Your task to perform on an android device: Open Yahoo.com Image 0: 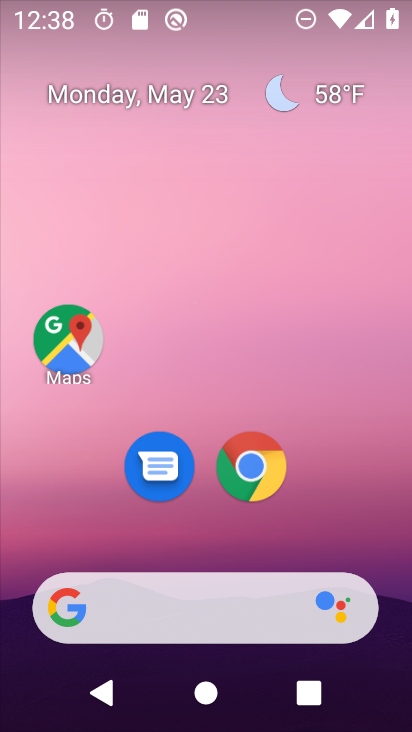
Step 0: click (255, 463)
Your task to perform on an android device: Open Yahoo.com Image 1: 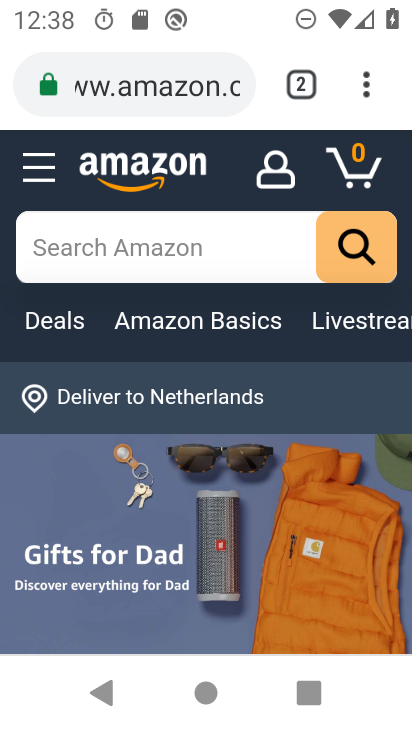
Step 1: press back button
Your task to perform on an android device: Open Yahoo.com Image 2: 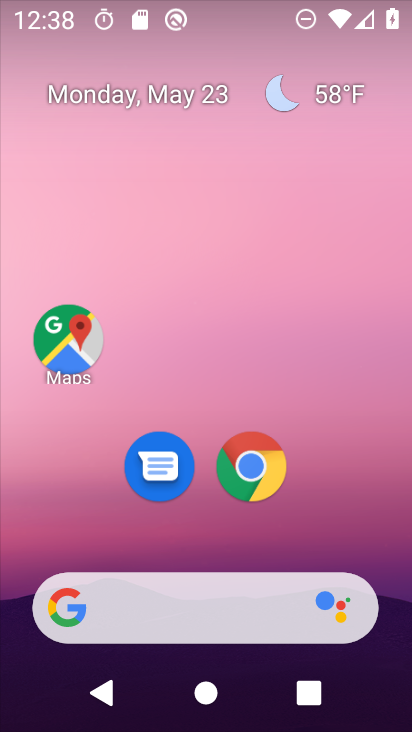
Step 2: click (256, 485)
Your task to perform on an android device: Open Yahoo.com Image 3: 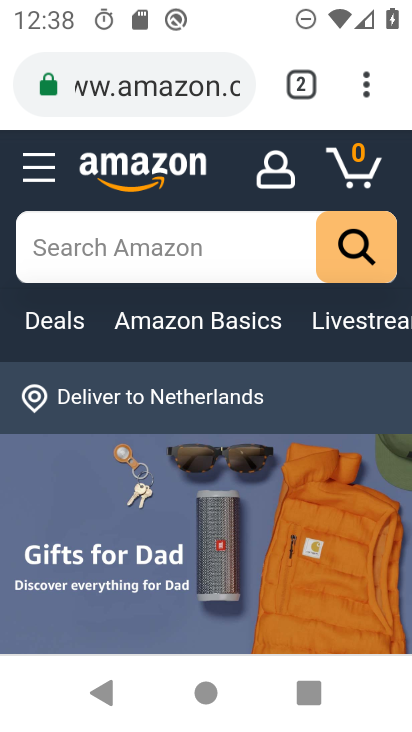
Step 3: click (172, 92)
Your task to perform on an android device: Open Yahoo.com Image 4: 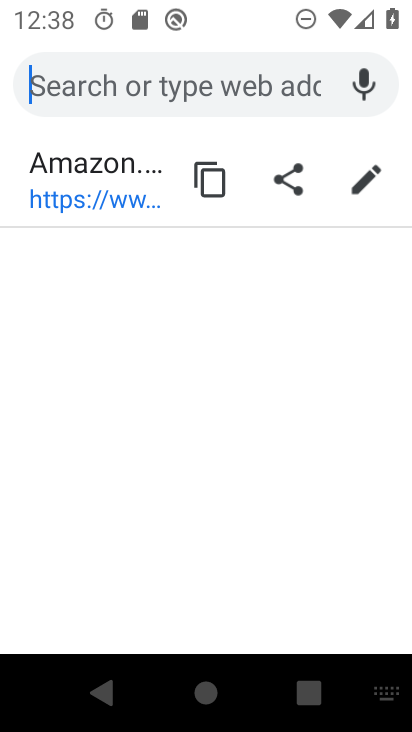
Step 4: type "yahoo.com"
Your task to perform on an android device: Open Yahoo.com Image 5: 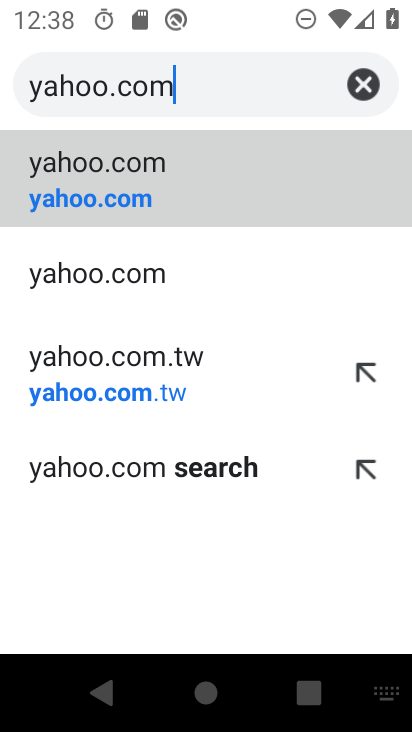
Step 5: click (123, 180)
Your task to perform on an android device: Open Yahoo.com Image 6: 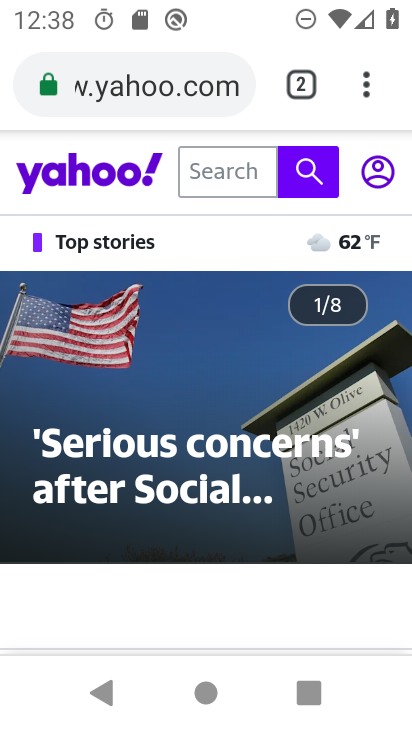
Step 6: task complete